Your task to perform on an android device: Go to Android settings Image 0: 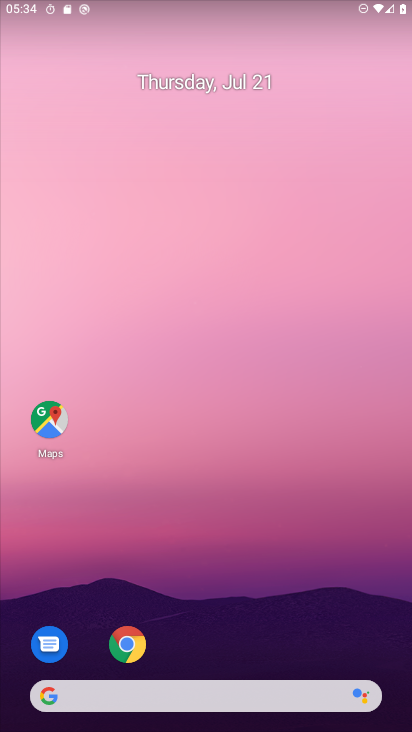
Step 0: drag from (197, 593) to (193, 102)
Your task to perform on an android device: Go to Android settings Image 1: 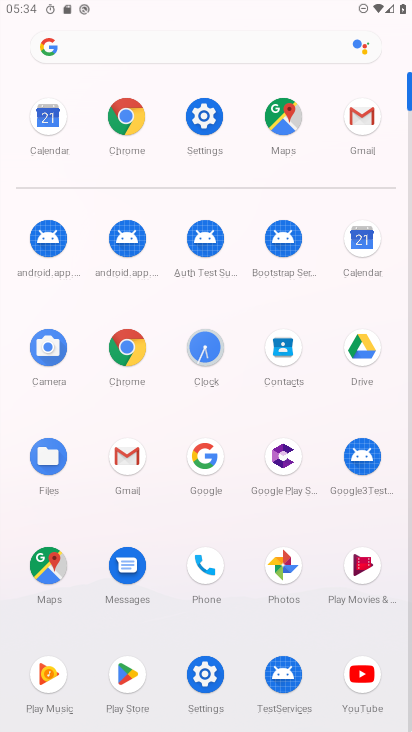
Step 1: click (204, 122)
Your task to perform on an android device: Go to Android settings Image 2: 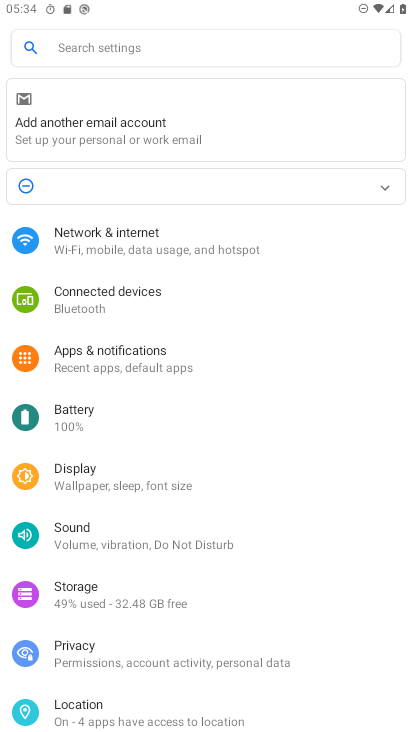
Step 2: drag from (167, 380) to (202, 175)
Your task to perform on an android device: Go to Android settings Image 3: 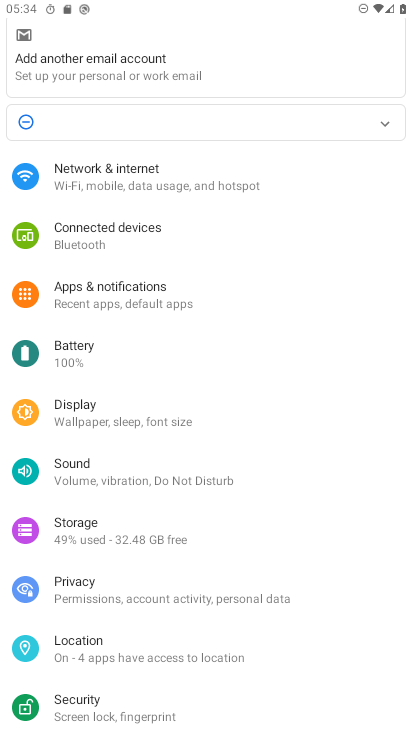
Step 3: drag from (129, 662) to (238, 95)
Your task to perform on an android device: Go to Android settings Image 4: 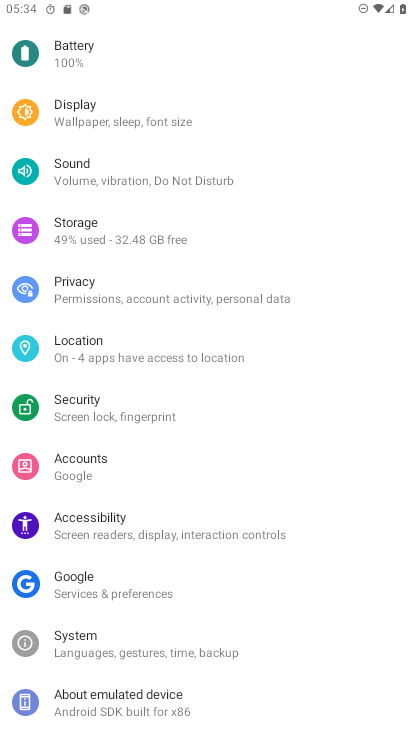
Step 4: click (135, 700)
Your task to perform on an android device: Go to Android settings Image 5: 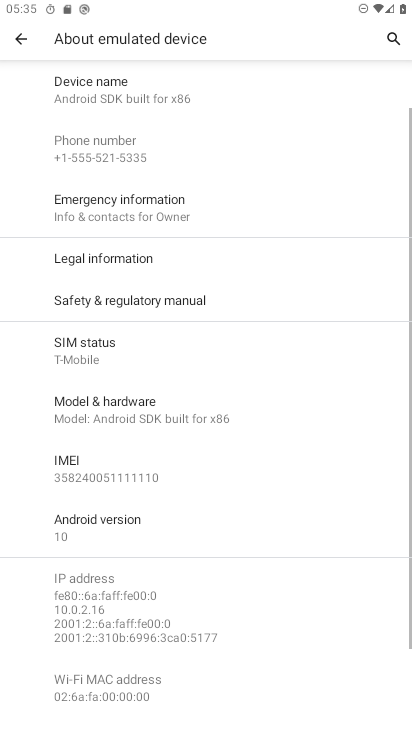
Step 5: click (82, 518)
Your task to perform on an android device: Go to Android settings Image 6: 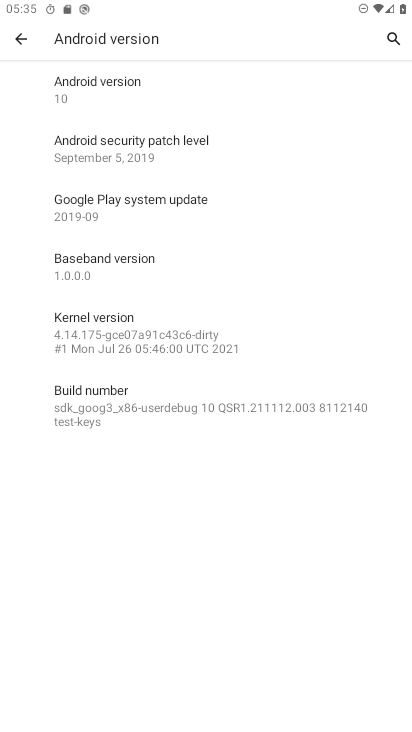
Step 6: task complete